Your task to perform on an android device: empty trash in the gmail app Image 0: 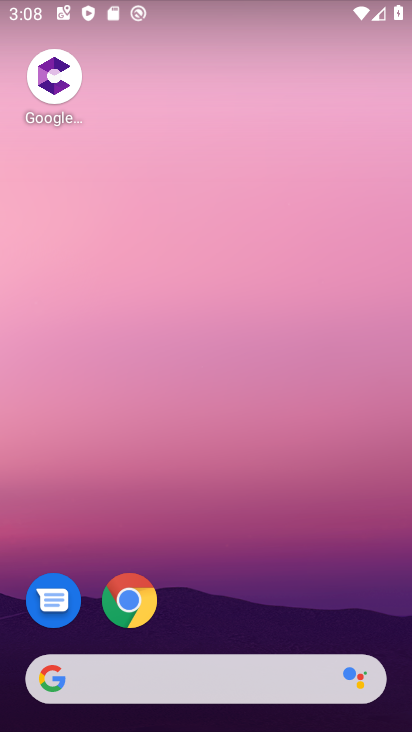
Step 0: drag from (238, 613) to (300, 19)
Your task to perform on an android device: empty trash in the gmail app Image 1: 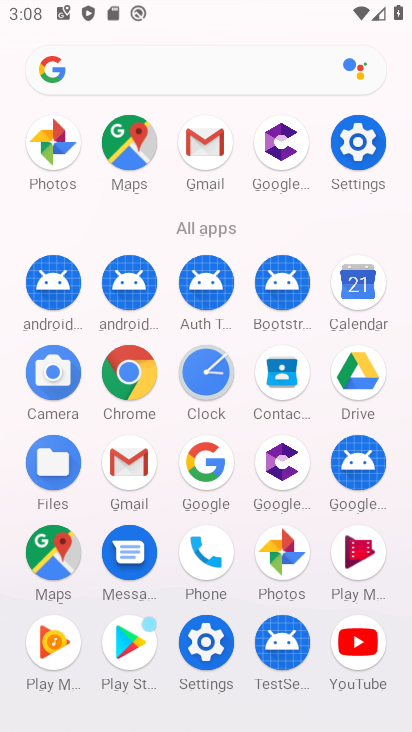
Step 1: click (201, 141)
Your task to perform on an android device: empty trash in the gmail app Image 2: 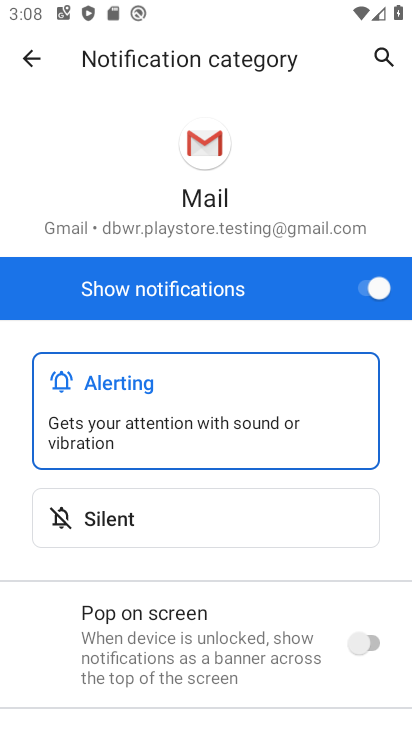
Step 2: press back button
Your task to perform on an android device: empty trash in the gmail app Image 3: 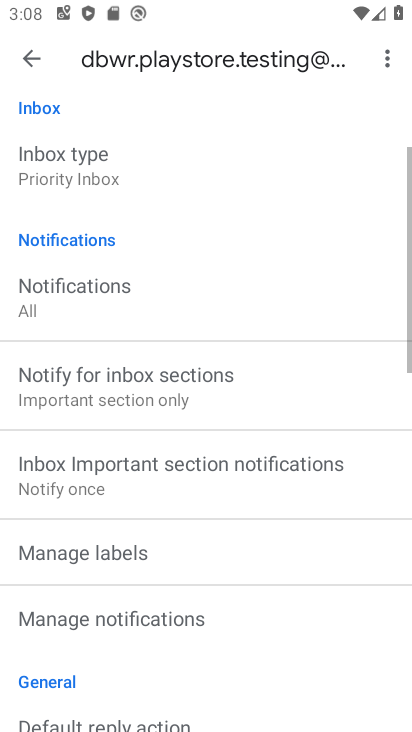
Step 3: press back button
Your task to perform on an android device: empty trash in the gmail app Image 4: 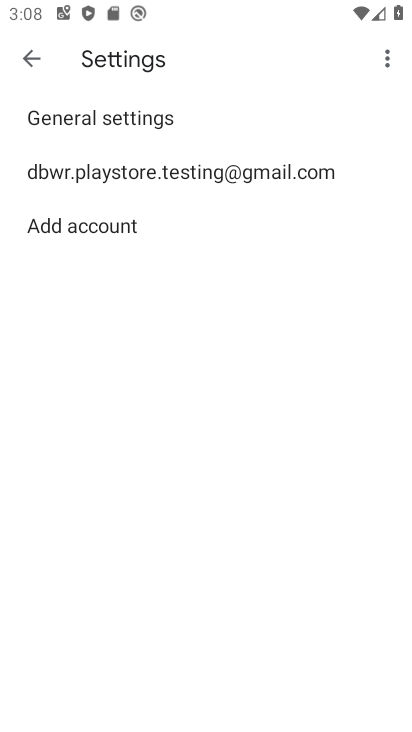
Step 4: press back button
Your task to perform on an android device: empty trash in the gmail app Image 5: 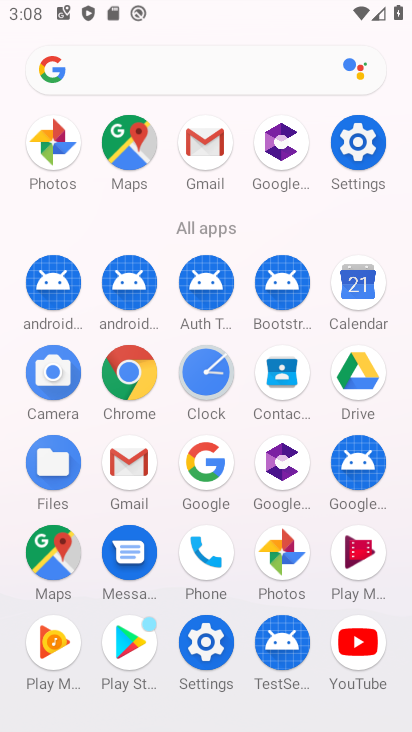
Step 5: click (203, 145)
Your task to perform on an android device: empty trash in the gmail app Image 6: 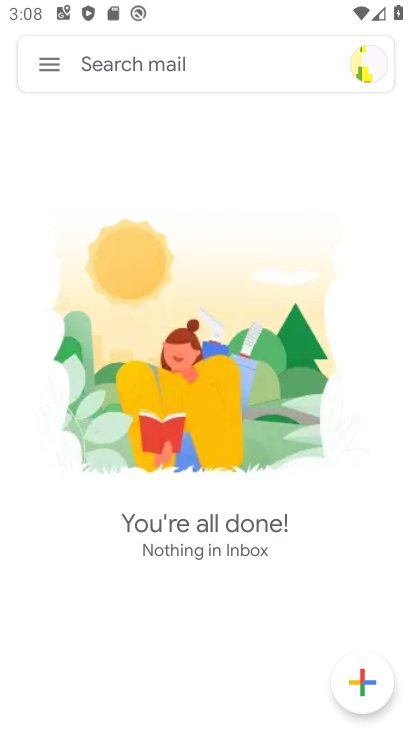
Step 6: click (49, 69)
Your task to perform on an android device: empty trash in the gmail app Image 7: 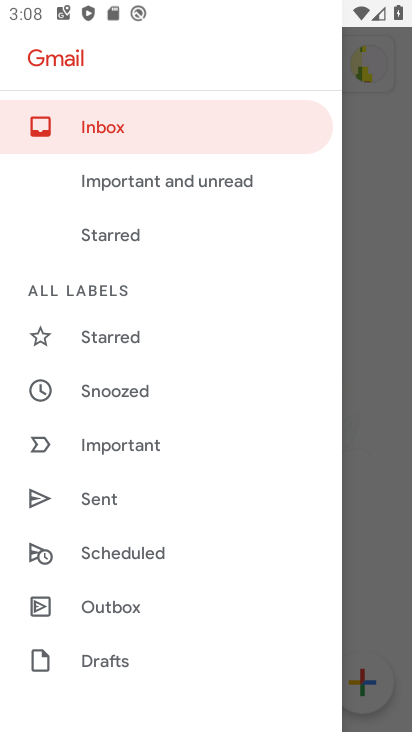
Step 7: drag from (154, 503) to (218, 314)
Your task to perform on an android device: empty trash in the gmail app Image 8: 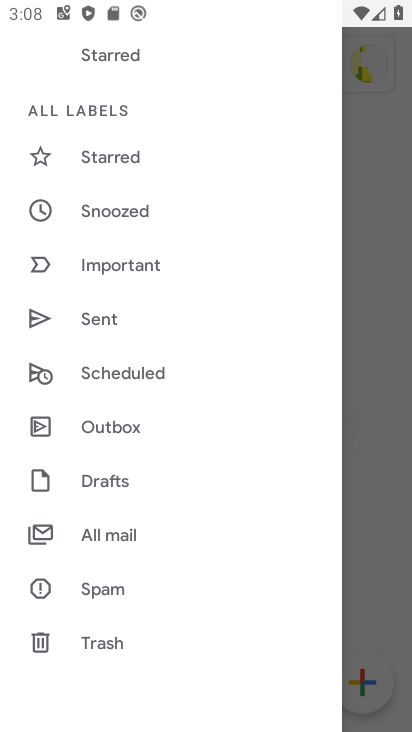
Step 8: click (107, 643)
Your task to perform on an android device: empty trash in the gmail app Image 9: 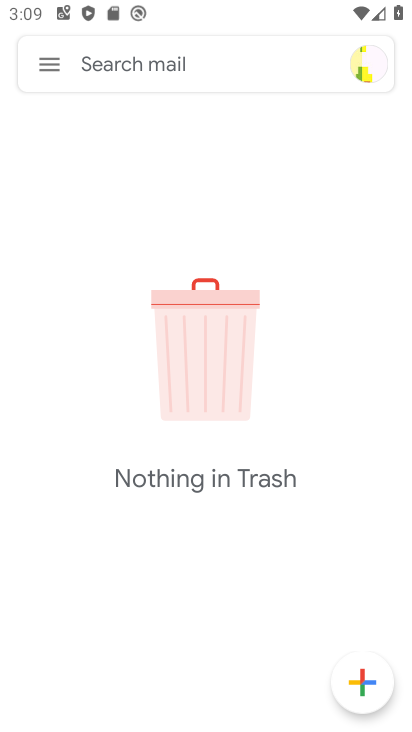
Step 9: task complete